Your task to perform on an android device: Toggle the flashlight Image 0: 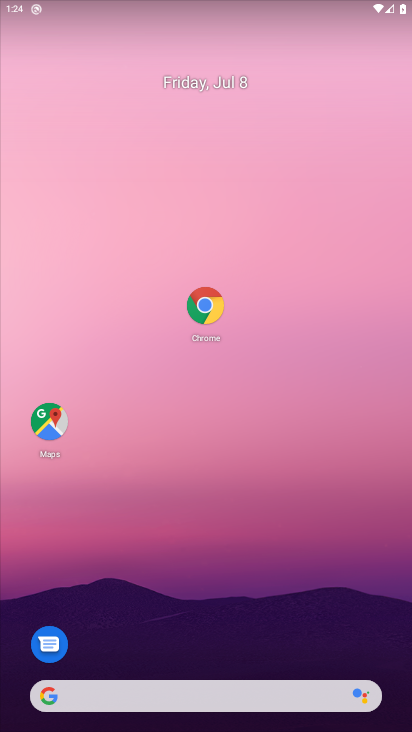
Step 0: drag from (191, 1) to (194, 475)
Your task to perform on an android device: Toggle the flashlight Image 1: 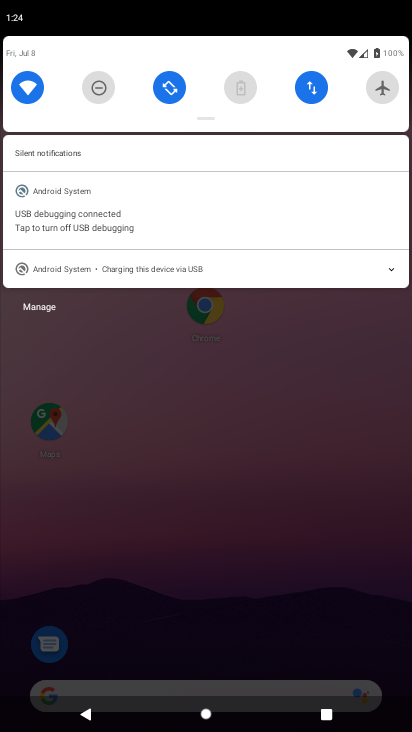
Step 1: drag from (194, 79) to (215, 449)
Your task to perform on an android device: Toggle the flashlight Image 2: 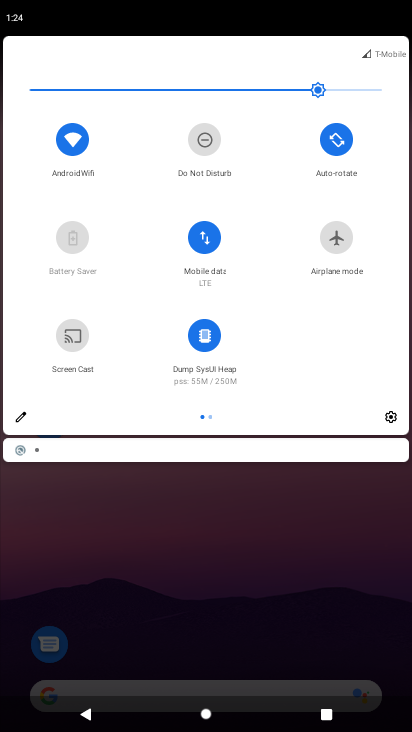
Step 2: drag from (378, 313) to (4, 312)
Your task to perform on an android device: Toggle the flashlight Image 3: 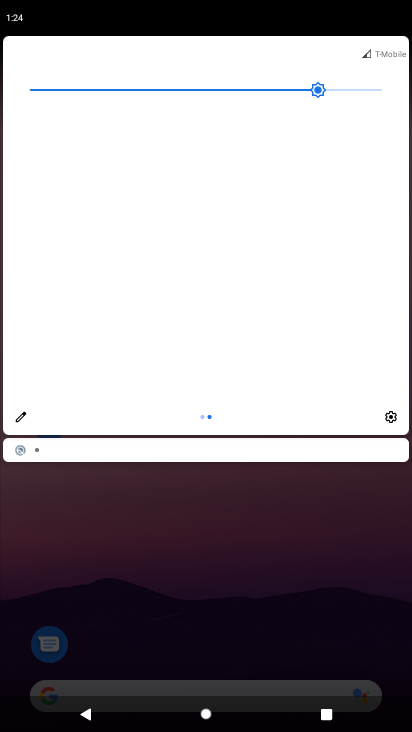
Step 3: click (22, 412)
Your task to perform on an android device: Toggle the flashlight Image 4: 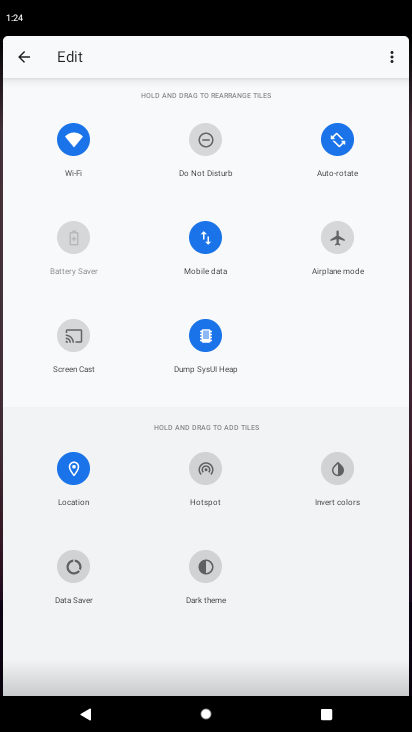
Step 4: task complete